Your task to perform on an android device: Look up the best rated coffee table on Ikea Image 0: 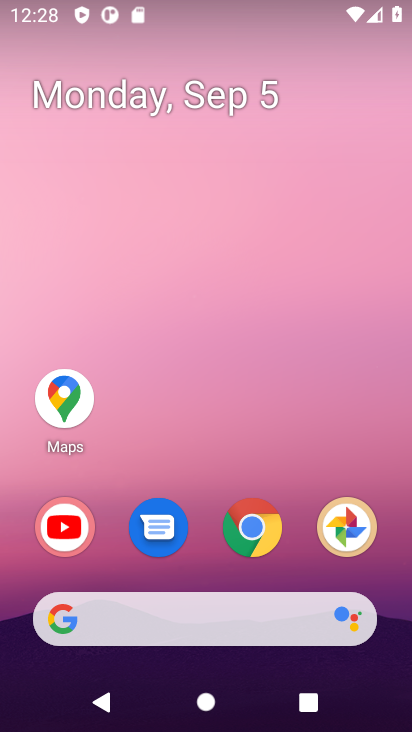
Step 0: click (256, 521)
Your task to perform on an android device: Look up the best rated coffee table on Ikea Image 1: 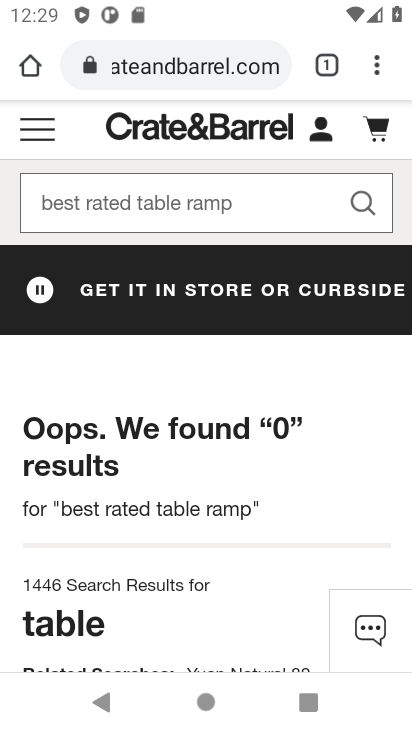
Step 1: click (166, 61)
Your task to perform on an android device: Look up the best rated coffee table on Ikea Image 2: 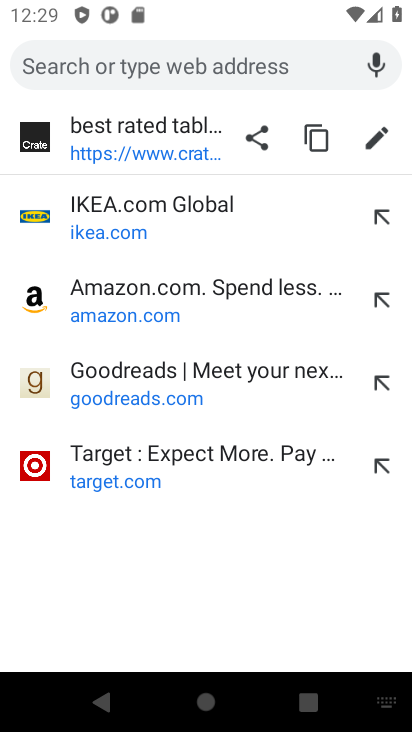
Step 2: type "Ikea"
Your task to perform on an android device: Look up the best rated coffee table on Ikea Image 3: 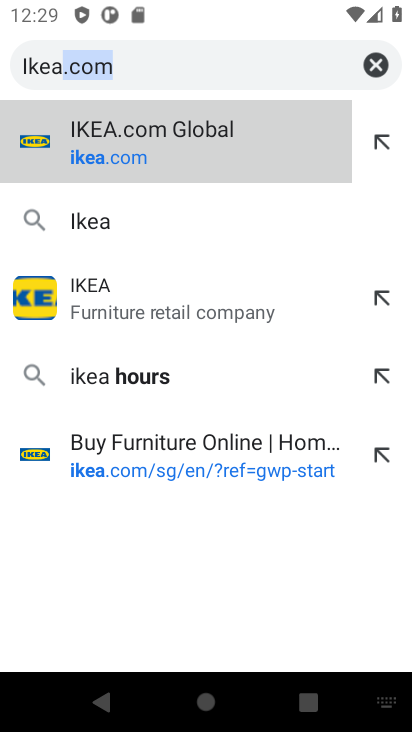
Step 3: click (112, 223)
Your task to perform on an android device: Look up the best rated coffee table on Ikea Image 4: 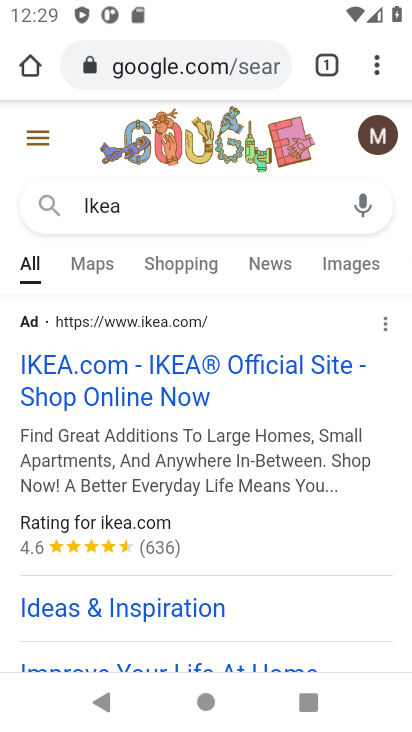
Step 4: click (70, 411)
Your task to perform on an android device: Look up the best rated coffee table on Ikea Image 5: 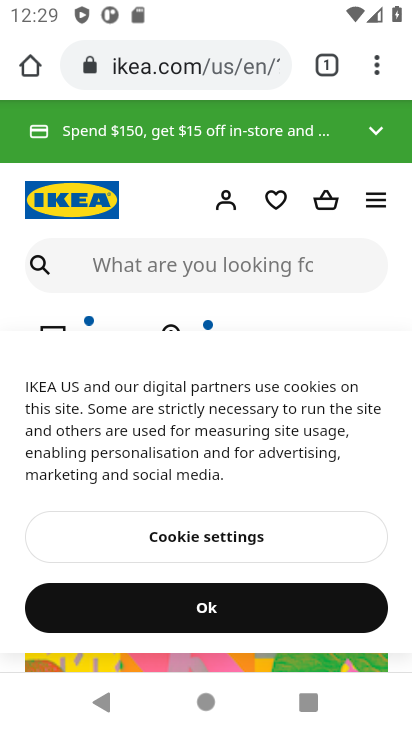
Step 5: click (194, 268)
Your task to perform on an android device: Look up the best rated coffee table on Ikea Image 6: 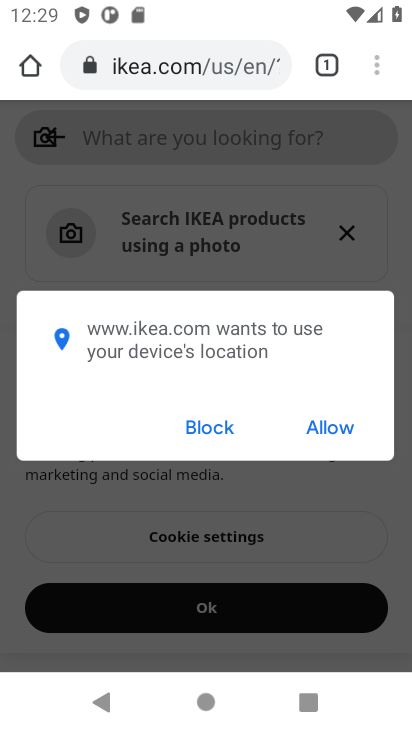
Step 6: click (206, 423)
Your task to perform on an android device: Look up the best rated coffee table on Ikea Image 7: 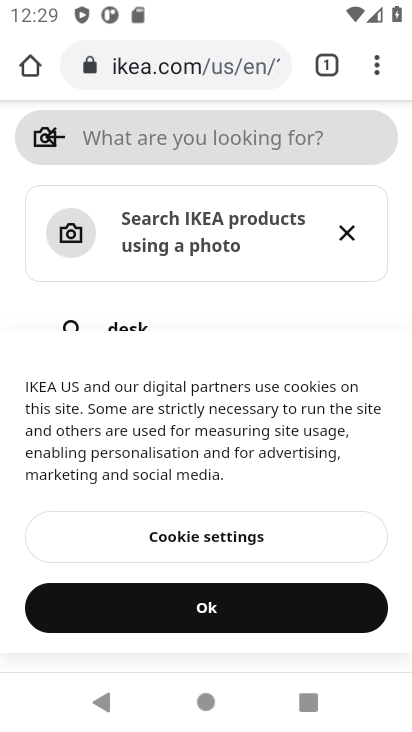
Step 7: click (281, 138)
Your task to perform on an android device: Look up the best rated coffee table on Ikea Image 8: 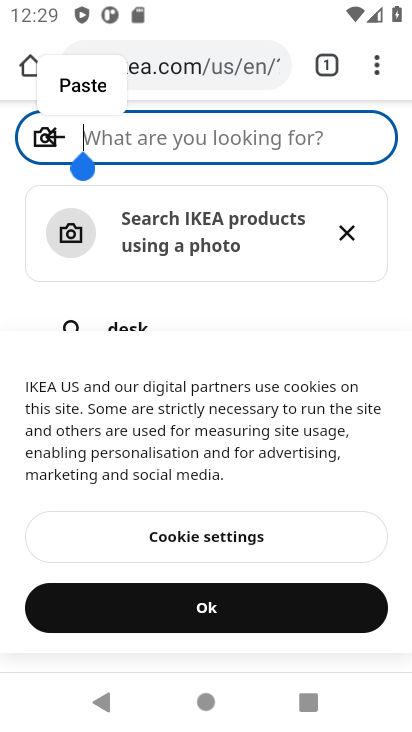
Step 8: type "the best rated coffee table "
Your task to perform on an android device: Look up the best rated coffee table on Ikea Image 9: 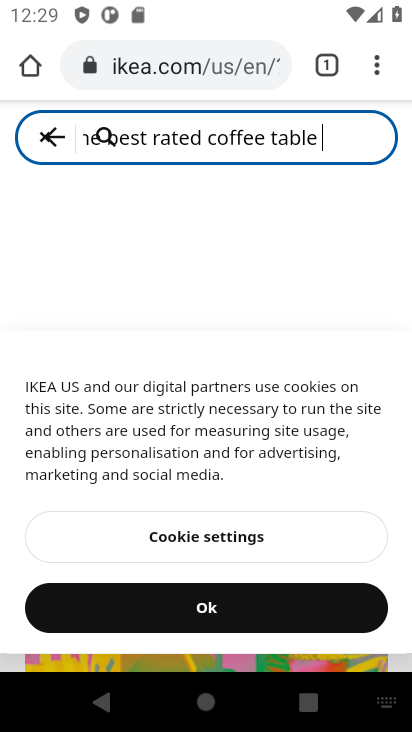
Step 9: click (98, 138)
Your task to perform on an android device: Look up the best rated coffee table on Ikea Image 10: 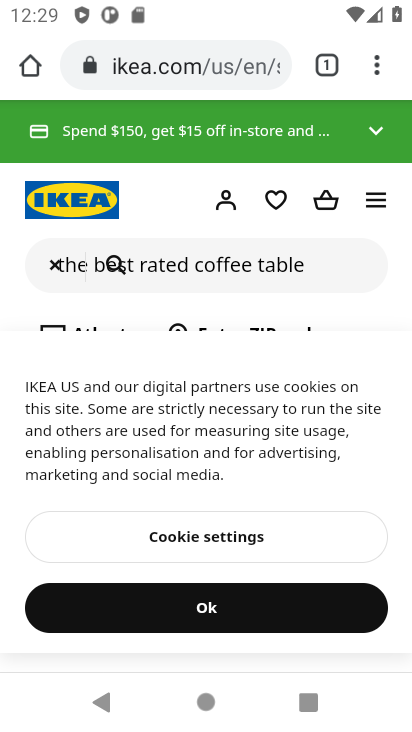
Step 10: click (221, 599)
Your task to perform on an android device: Look up the best rated coffee table on Ikea Image 11: 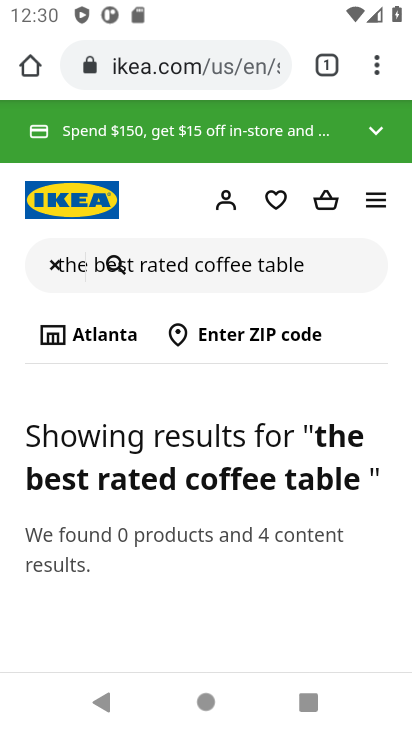
Step 11: task complete